Your task to perform on an android device: Turn off the flashlight Image 0: 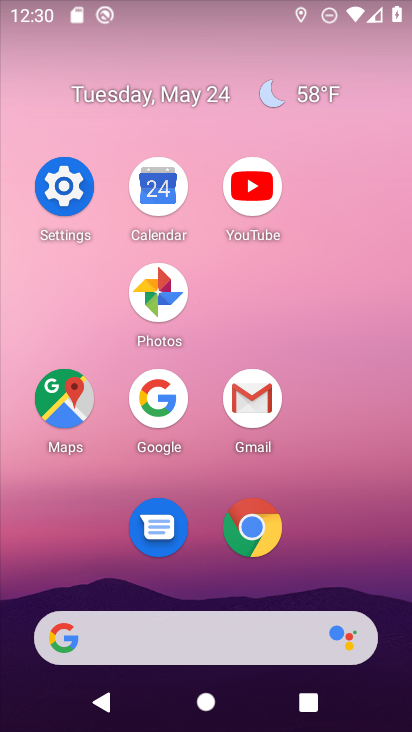
Step 0: drag from (244, 2) to (273, 378)
Your task to perform on an android device: Turn off the flashlight Image 1: 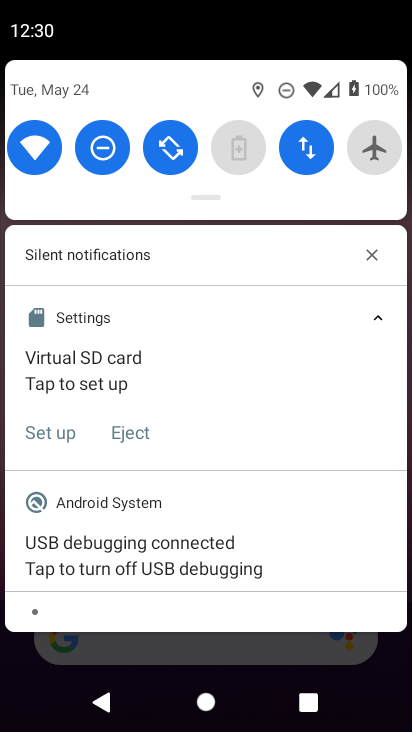
Step 1: task complete